Your task to perform on an android device: change text size in settings app Image 0: 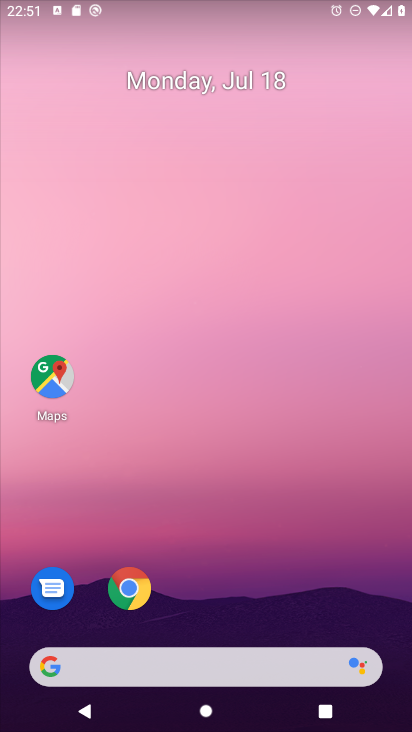
Step 0: drag from (392, 638) to (328, 191)
Your task to perform on an android device: change text size in settings app Image 1: 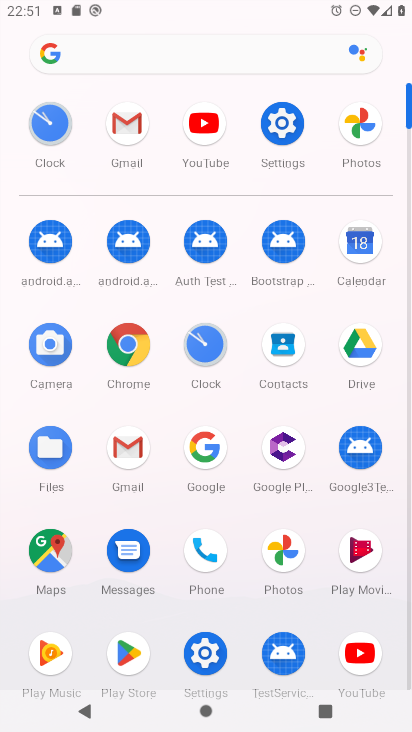
Step 1: click (204, 649)
Your task to perform on an android device: change text size in settings app Image 2: 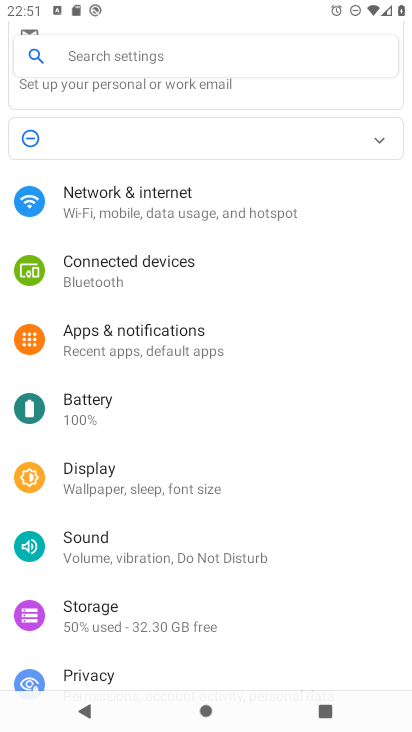
Step 2: click (80, 474)
Your task to perform on an android device: change text size in settings app Image 3: 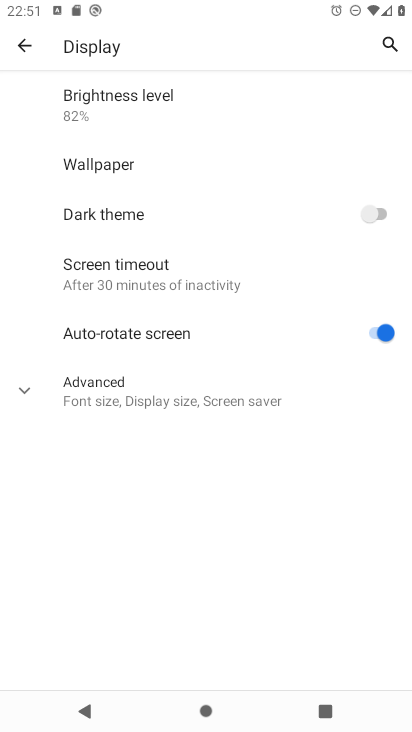
Step 3: click (25, 387)
Your task to perform on an android device: change text size in settings app Image 4: 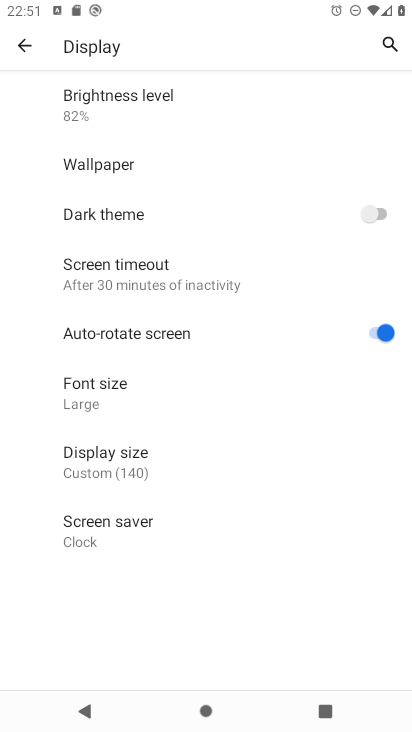
Step 4: click (107, 378)
Your task to perform on an android device: change text size in settings app Image 5: 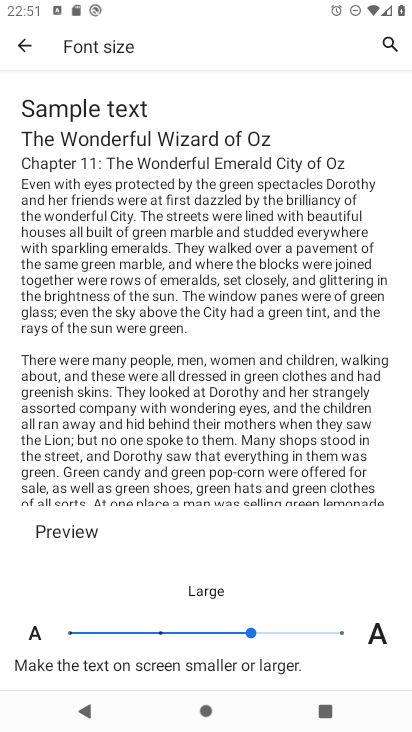
Step 5: click (345, 638)
Your task to perform on an android device: change text size in settings app Image 6: 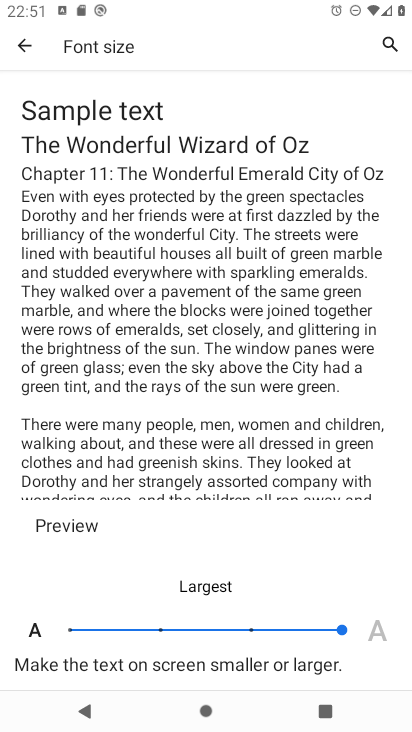
Step 6: task complete